Your task to perform on an android device: turn off notifications settings in the gmail app Image 0: 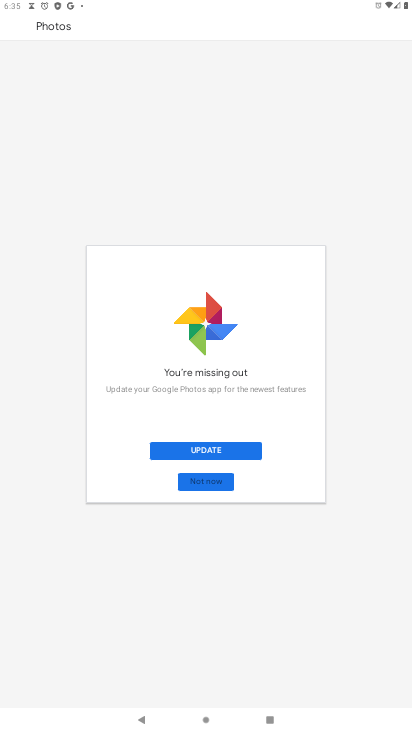
Step 0: press home button
Your task to perform on an android device: turn off notifications settings in the gmail app Image 1: 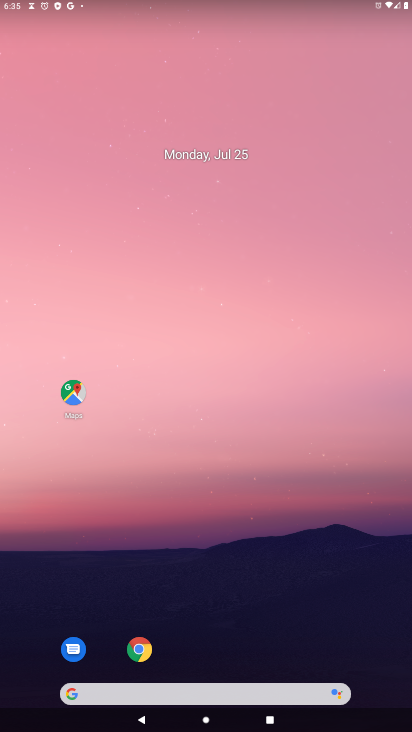
Step 1: drag from (300, 655) to (284, 101)
Your task to perform on an android device: turn off notifications settings in the gmail app Image 2: 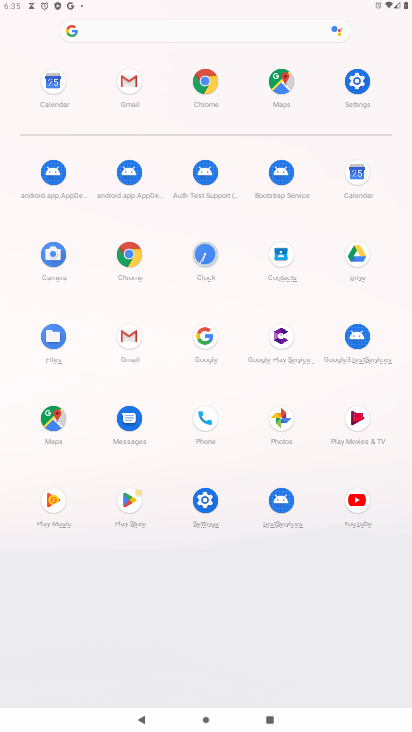
Step 2: click (124, 332)
Your task to perform on an android device: turn off notifications settings in the gmail app Image 3: 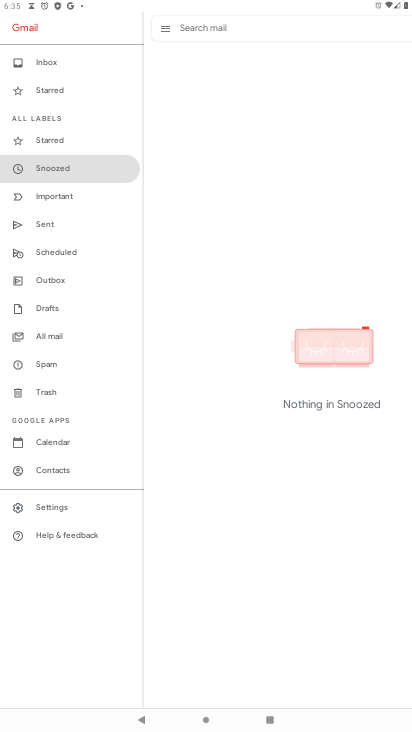
Step 3: click (58, 510)
Your task to perform on an android device: turn off notifications settings in the gmail app Image 4: 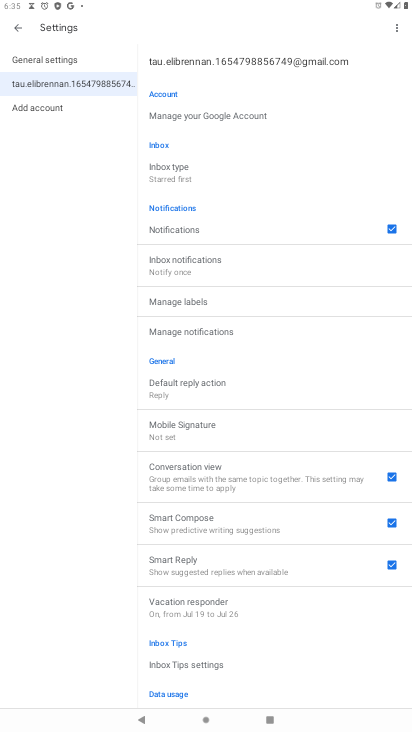
Step 4: click (235, 334)
Your task to perform on an android device: turn off notifications settings in the gmail app Image 5: 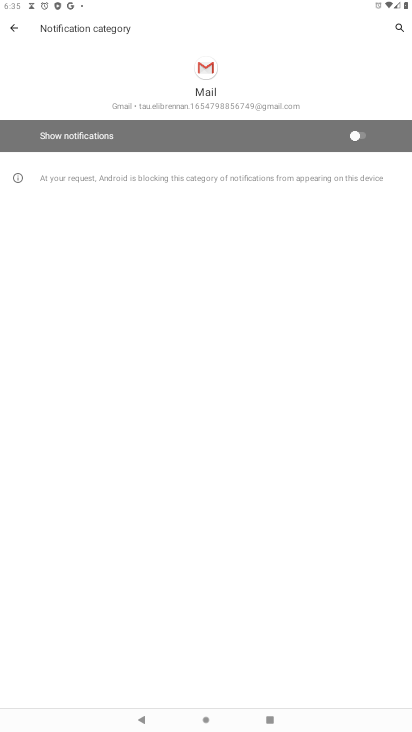
Step 5: click (358, 136)
Your task to perform on an android device: turn off notifications settings in the gmail app Image 6: 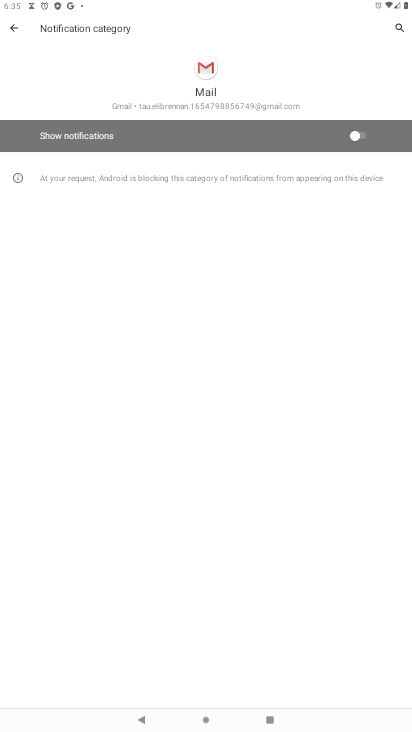
Step 6: click (361, 134)
Your task to perform on an android device: turn off notifications settings in the gmail app Image 7: 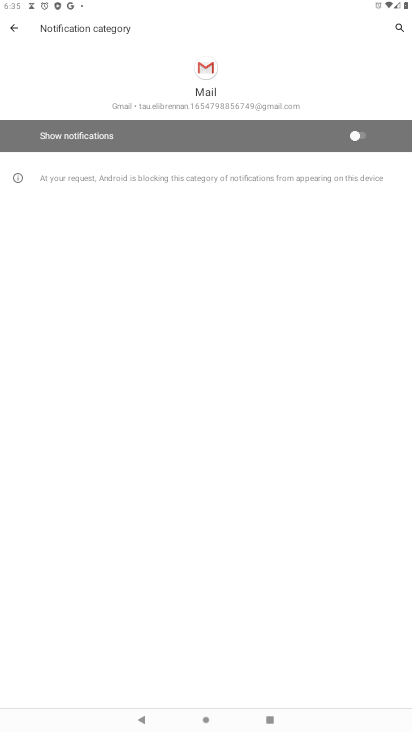
Step 7: task complete